Your task to perform on an android device: turn off location Image 0: 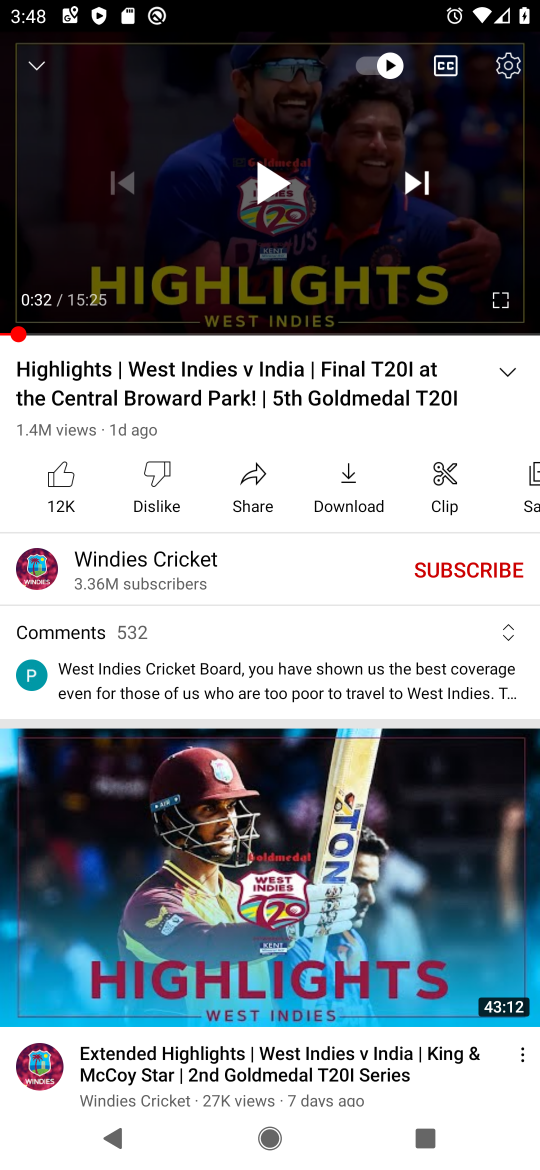
Step 0: press home button
Your task to perform on an android device: turn off location Image 1: 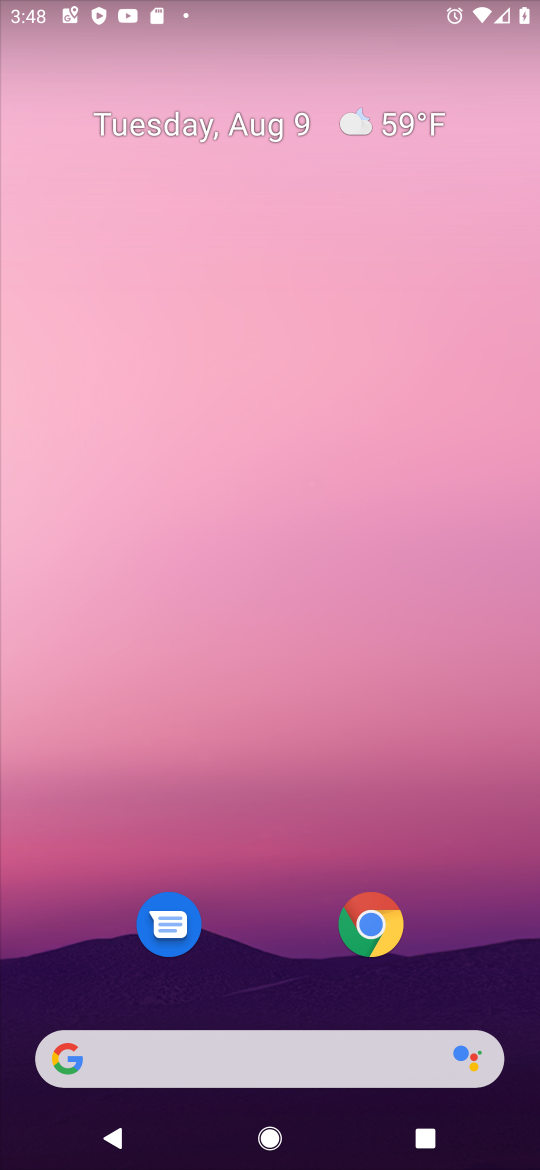
Step 1: drag from (250, 905) to (366, 1)
Your task to perform on an android device: turn off location Image 2: 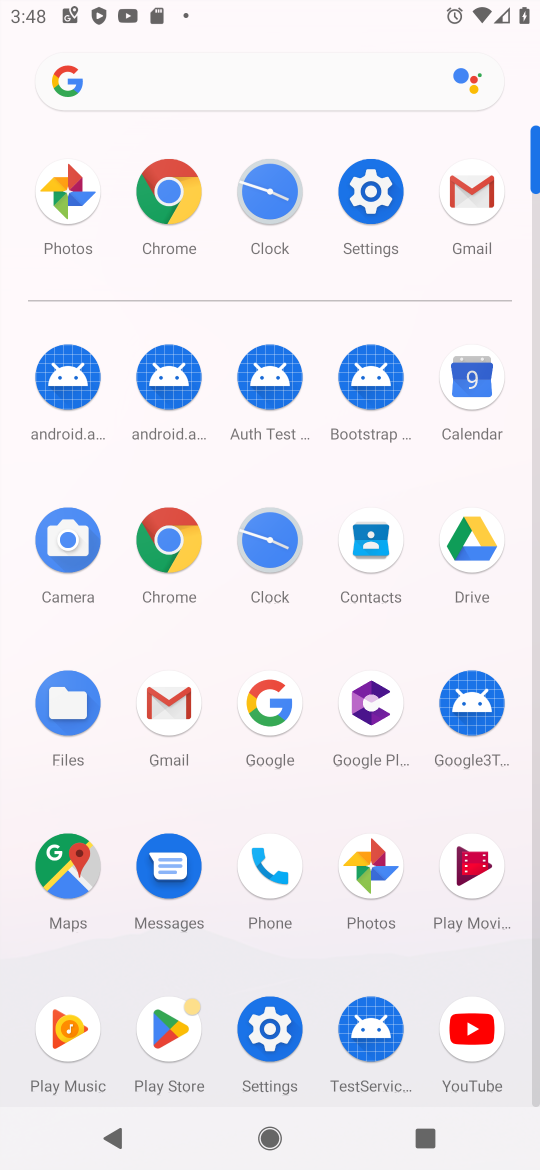
Step 2: click (370, 194)
Your task to perform on an android device: turn off location Image 3: 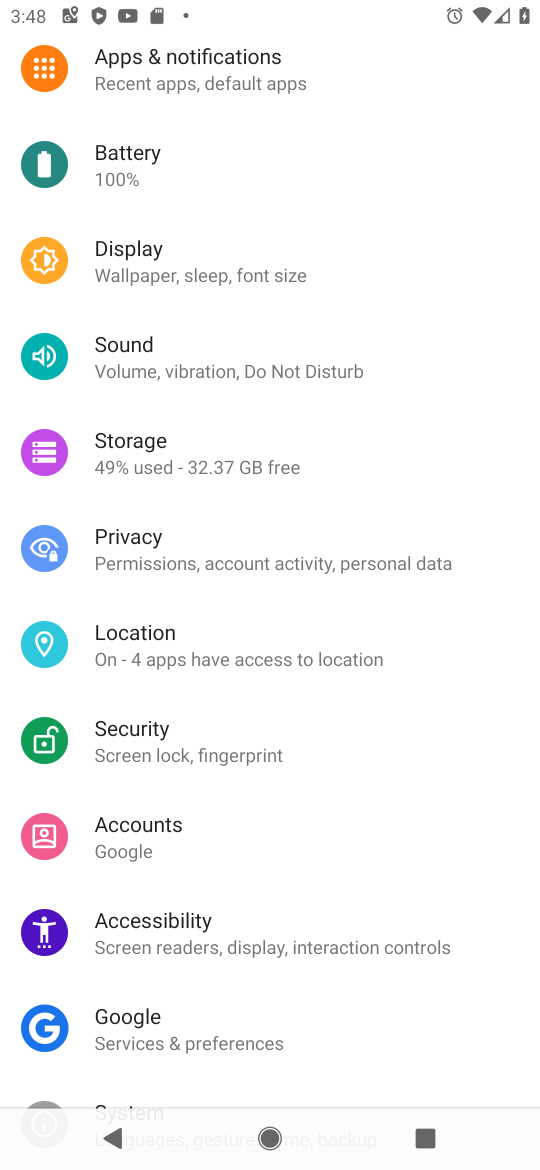
Step 3: click (250, 642)
Your task to perform on an android device: turn off location Image 4: 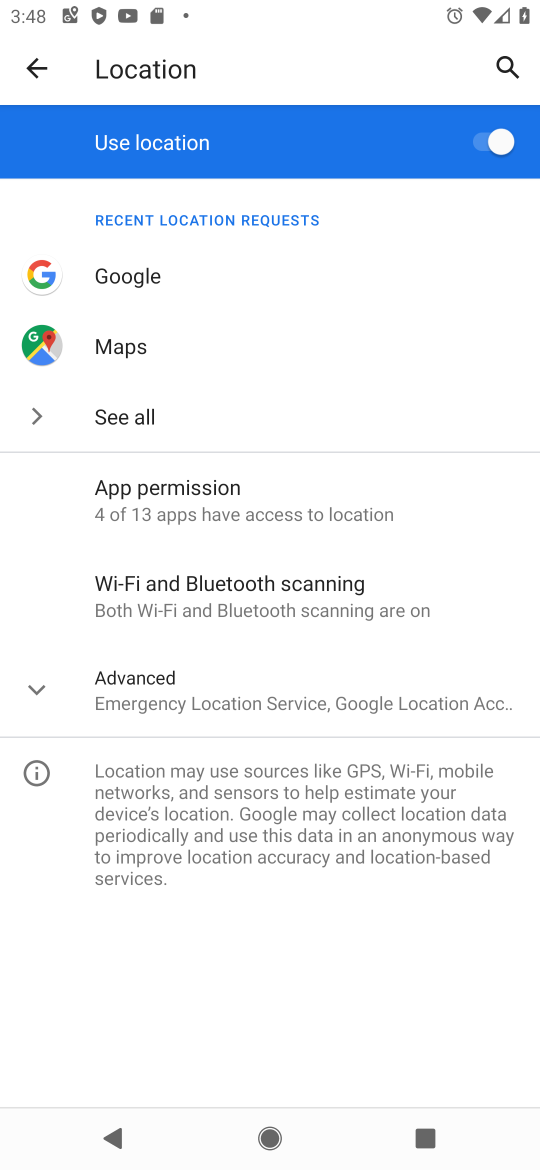
Step 4: click (488, 145)
Your task to perform on an android device: turn off location Image 5: 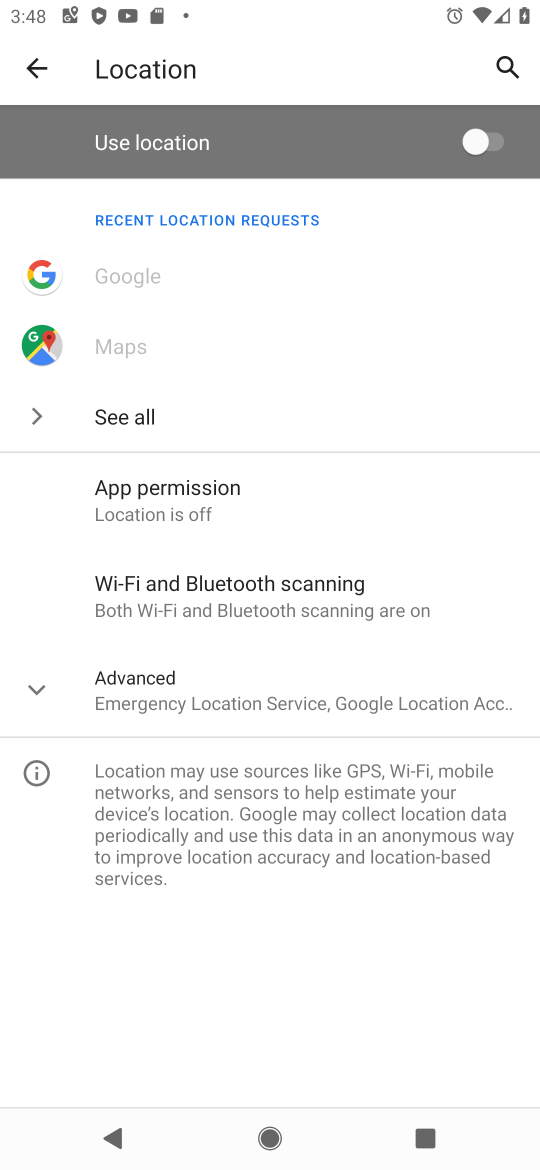
Step 5: task complete